Your task to perform on an android device: turn off javascript in the chrome app Image 0: 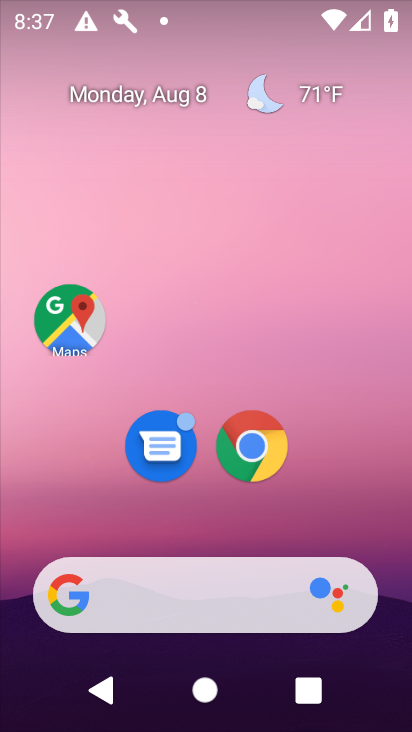
Step 0: drag from (236, 530) to (233, 314)
Your task to perform on an android device: turn off javascript in the chrome app Image 1: 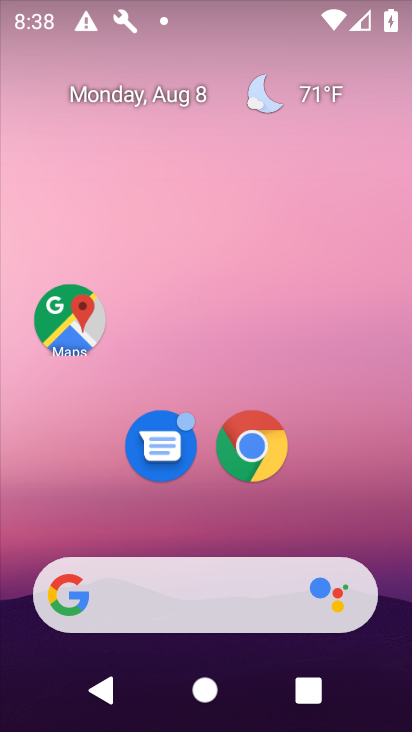
Step 1: drag from (242, 638) to (224, 250)
Your task to perform on an android device: turn off javascript in the chrome app Image 2: 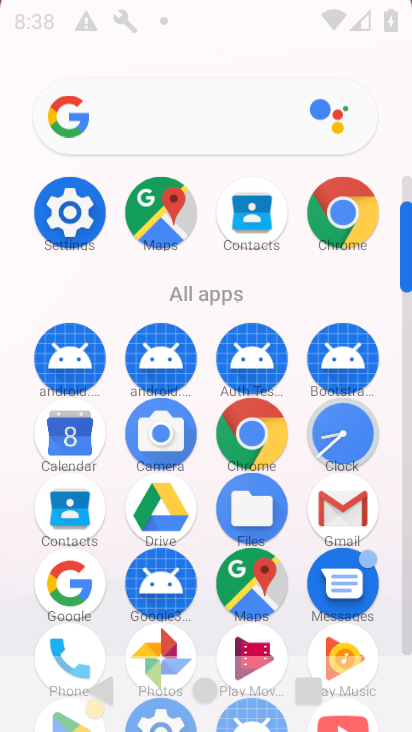
Step 2: drag from (147, 124) to (217, 225)
Your task to perform on an android device: turn off javascript in the chrome app Image 3: 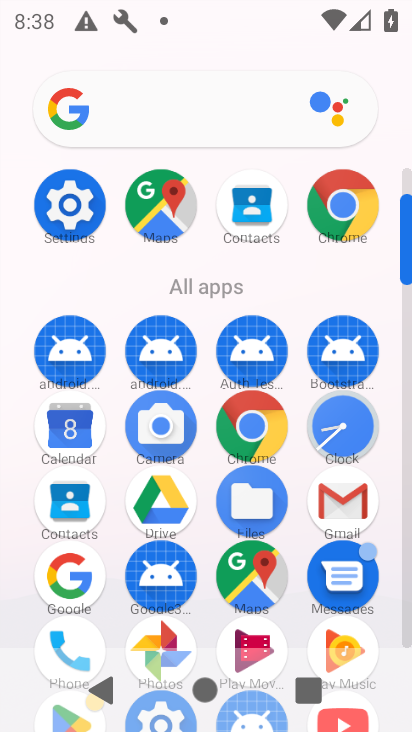
Step 3: click (353, 200)
Your task to perform on an android device: turn off javascript in the chrome app Image 4: 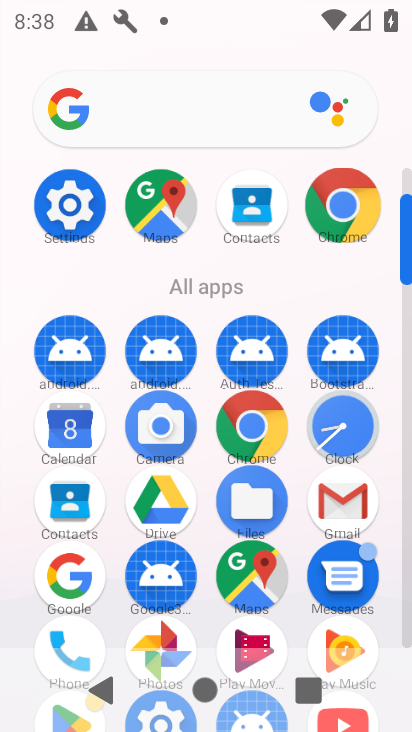
Step 4: click (352, 201)
Your task to perform on an android device: turn off javascript in the chrome app Image 5: 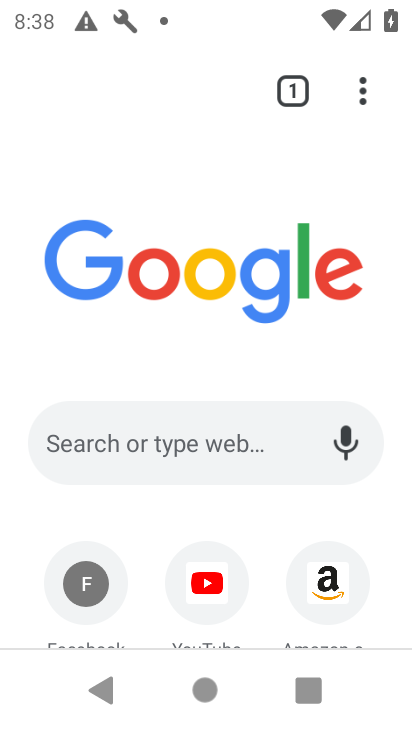
Step 5: drag from (361, 94) to (100, 468)
Your task to perform on an android device: turn off javascript in the chrome app Image 6: 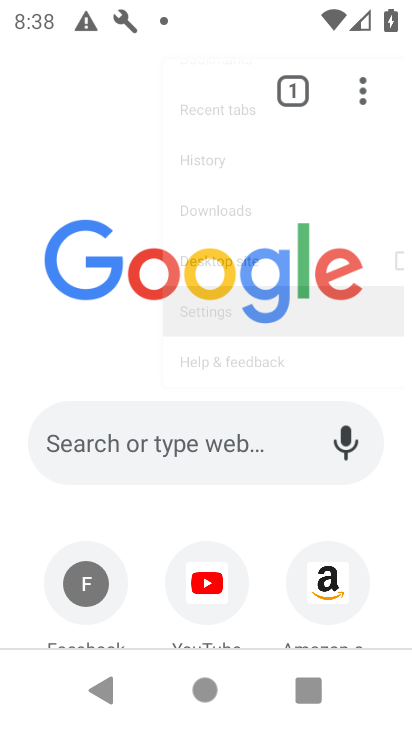
Step 6: click (100, 468)
Your task to perform on an android device: turn off javascript in the chrome app Image 7: 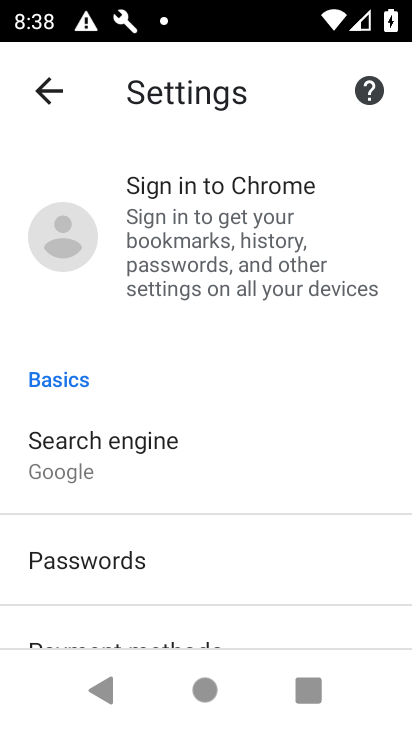
Step 7: drag from (224, 412) to (200, 134)
Your task to perform on an android device: turn off javascript in the chrome app Image 8: 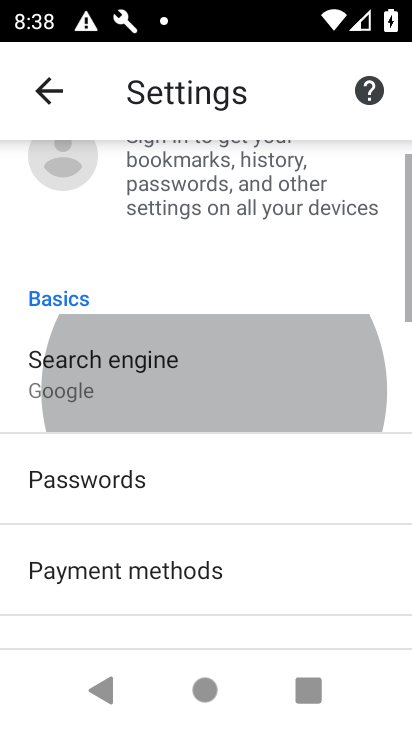
Step 8: drag from (219, 400) to (225, 174)
Your task to perform on an android device: turn off javascript in the chrome app Image 9: 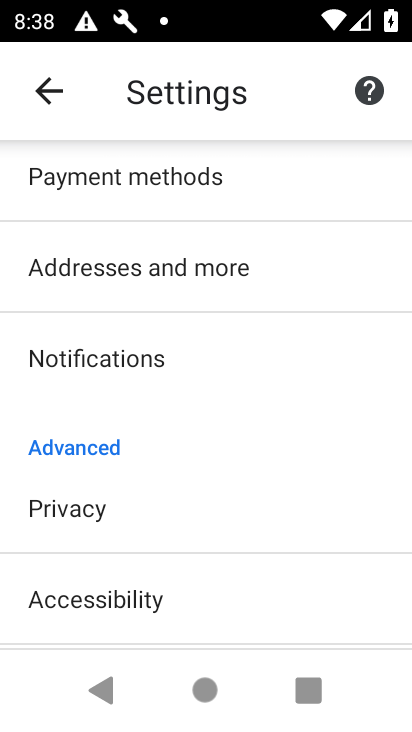
Step 9: drag from (131, 575) to (101, 287)
Your task to perform on an android device: turn off javascript in the chrome app Image 10: 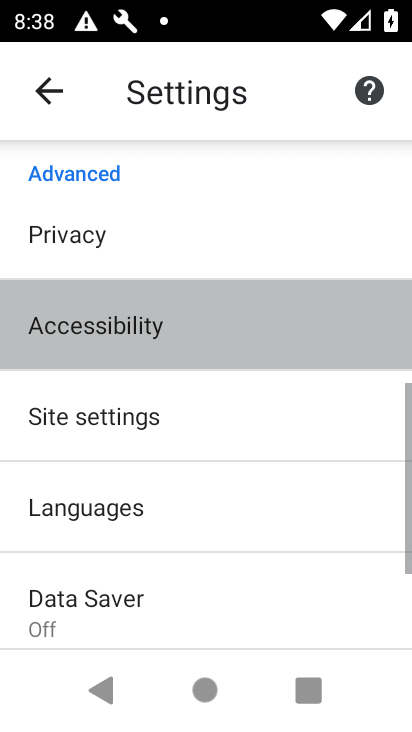
Step 10: drag from (136, 519) to (109, 245)
Your task to perform on an android device: turn off javascript in the chrome app Image 11: 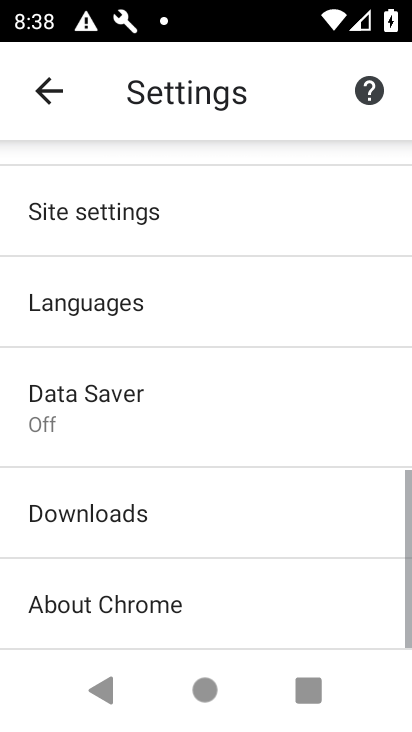
Step 11: drag from (153, 526) to (131, 280)
Your task to perform on an android device: turn off javascript in the chrome app Image 12: 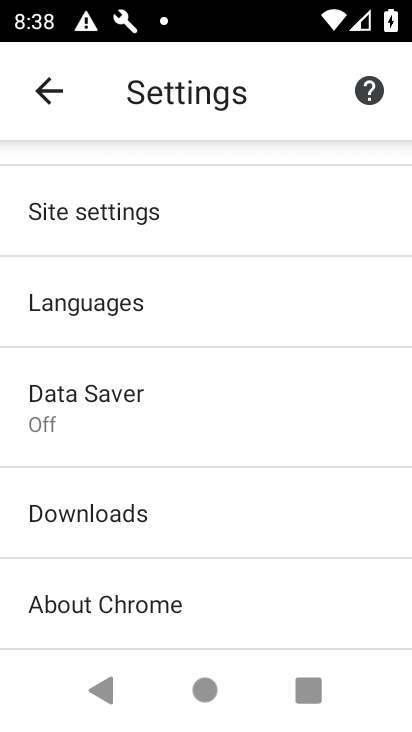
Step 12: click (67, 210)
Your task to perform on an android device: turn off javascript in the chrome app Image 13: 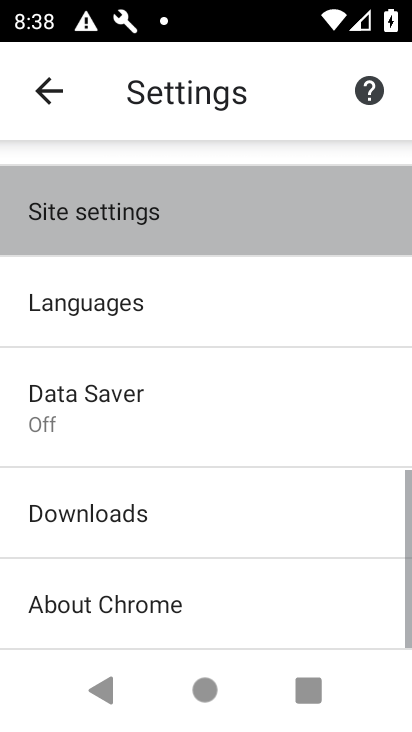
Step 13: click (68, 209)
Your task to perform on an android device: turn off javascript in the chrome app Image 14: 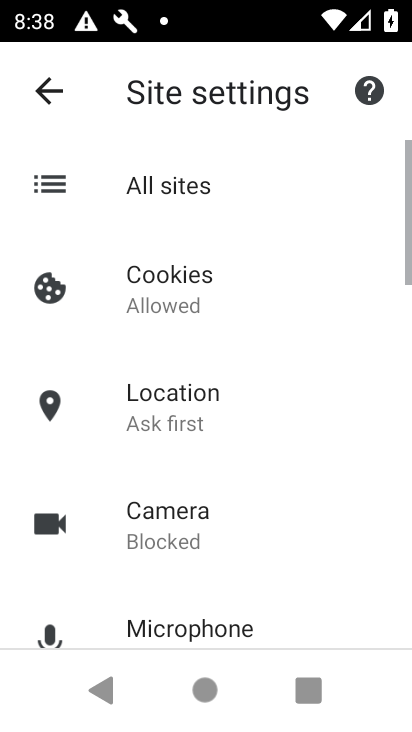
Step 14: drag from (220, 571) to (196, 229)
Your task to perform on an android device: turn off javascript in the chrome app Image 15: 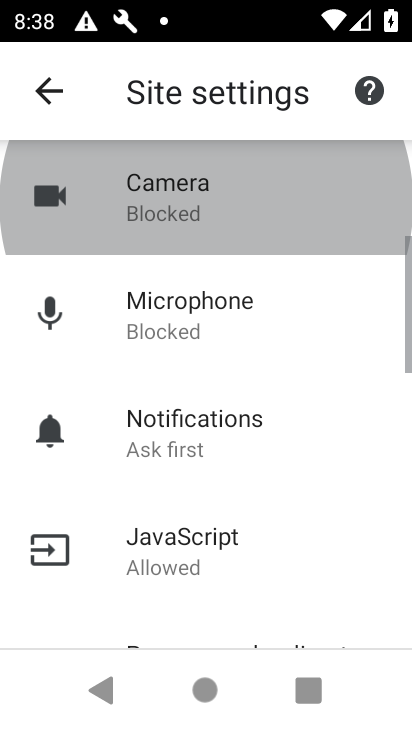
Step 15: drag from (209, 433) to (175, 186)
Your task to perform on an android device: turn off javascript in the chrome app Image 16: 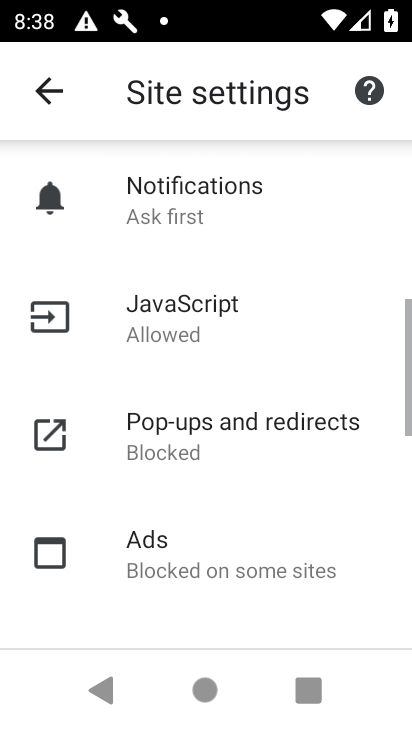
Step 16: click (171, 307)
Your task to perform on an android device: turn off javascript in the chrome app Image 17: 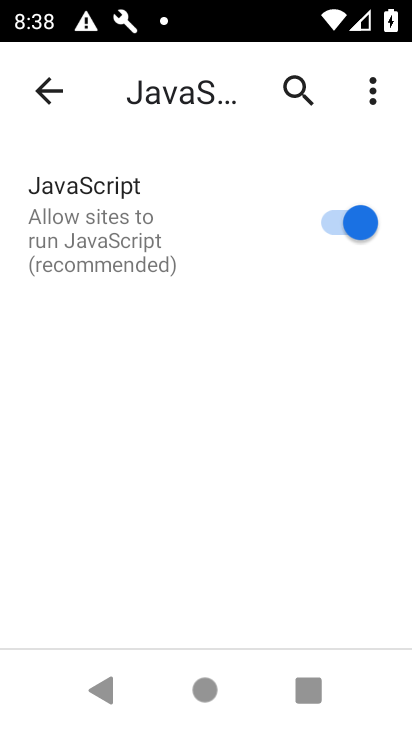
Step 17: click (359, 216)
Your task to perform on an android device: turn off javascript in the chrome app Image 18: 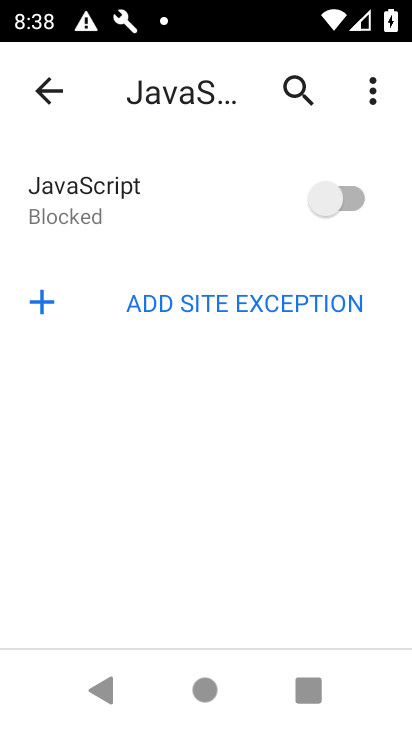
Step 18: task complete